Your task to perform on an android device: turn vacation reply on in the gmail app Image 0: 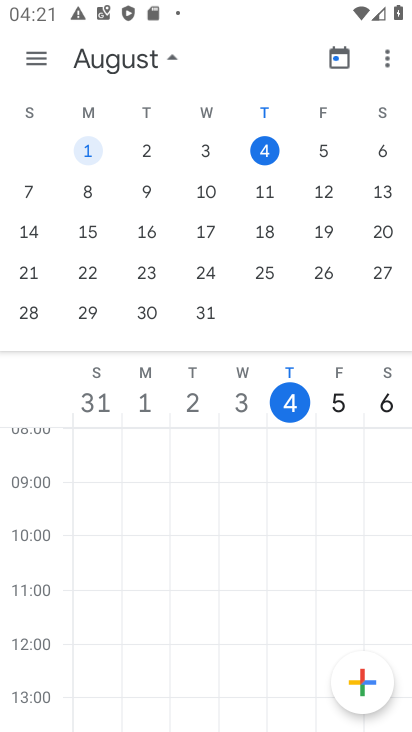
Step 0: press home button
Your task to perform on an android device: turn vacation reply on in the gmail app Image 1: 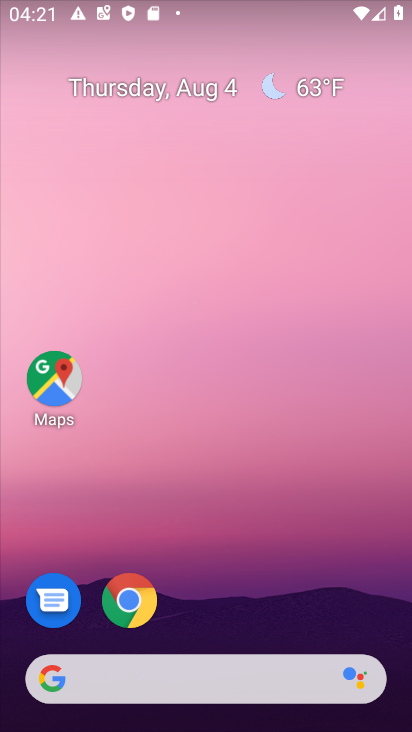
Step 1: drag from (270, 594) to (180, 51)
Your task to perform on an android device: turn vacation reply on in the gmail app Image 2: 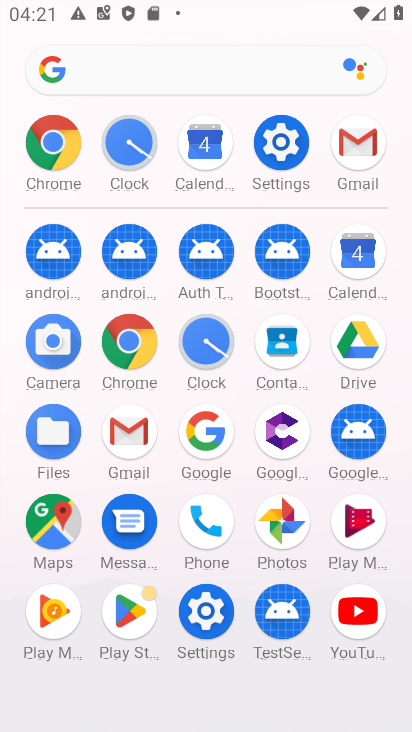
Step 2: click (123, 428)
Your task to perform on an android device: turn vacation reply on in the gmail app Image 3: 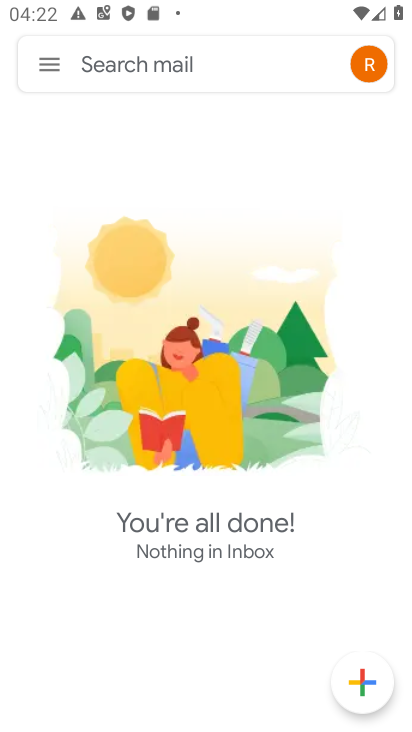
Step 3: click (59, 66)
Your task to perform on an android device: turn vacation reply on in the gmail app Image 4: 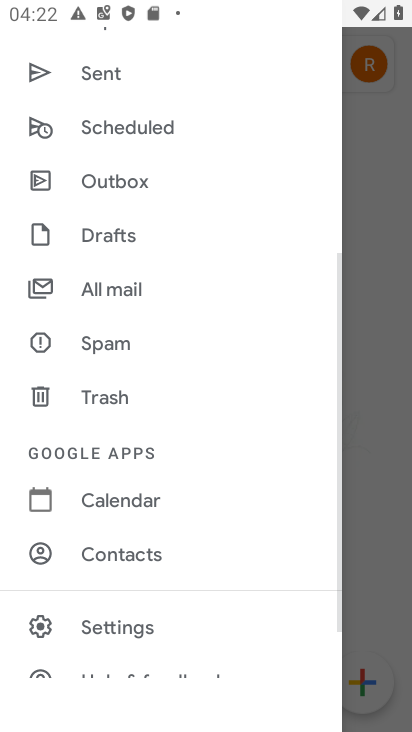
Step 4: drag from (126, 588) to (145, 228)
Your task to perform on an android device: turn vacation reply on in the gmail app Image 5: 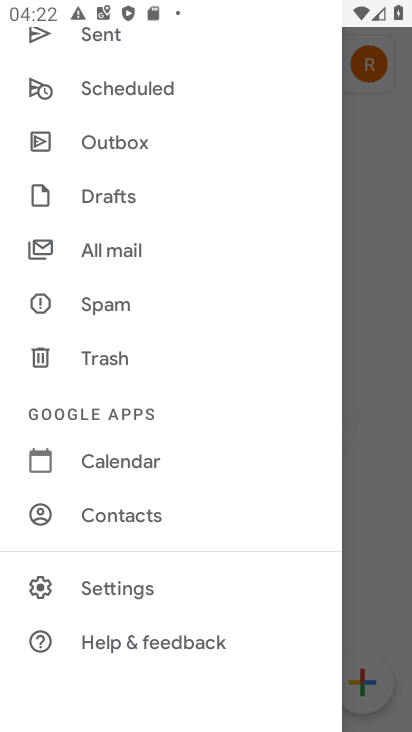
Step 5: click (118, 586)
Your task to perform on an android device: turn vacation reply on in the gmail app Image 6: 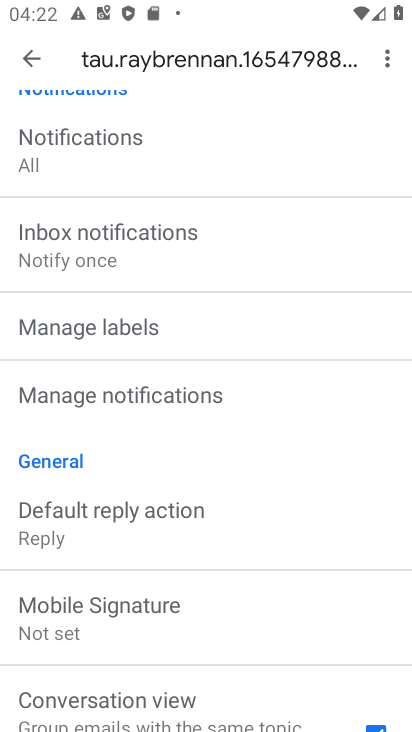
Step 6: drag from (240, 166) to (250, 559)
Your task to perform on an android device: turn vacation reply on in the gmail app Image 7: 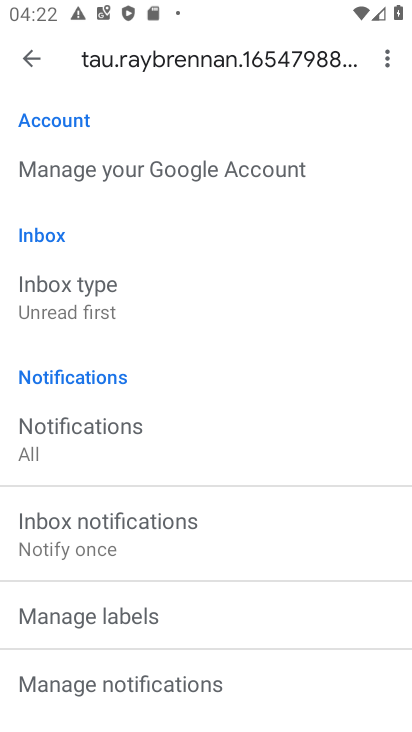
Step 7: drag from (311, 408) to (314, 342)
Your task to perform on an android device: turn vacation reply on in the gmail app Image 8: 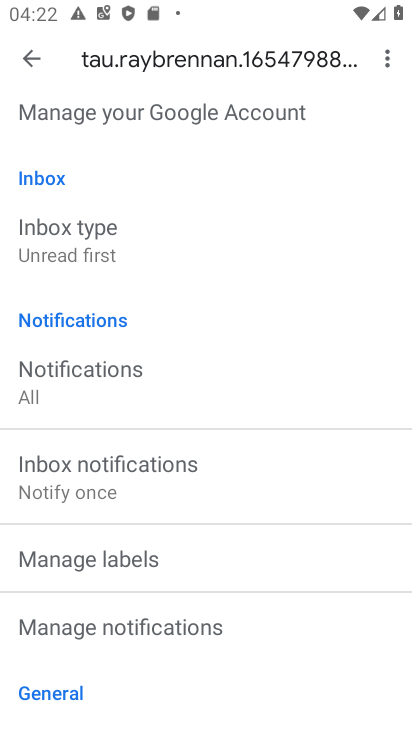
Step 8: drag from (213, 646) to (354, 227)
Your task to perform on an android device: turn vacation reply on in the gmail app Image 9: 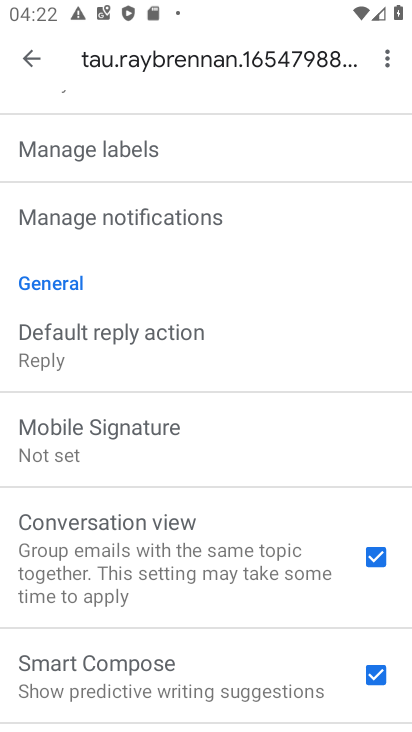
Step 9: drag from (157, 627) to (221, 266)
Your task to perform on an android device: turn vacation reply on in the gmail app Image 10: 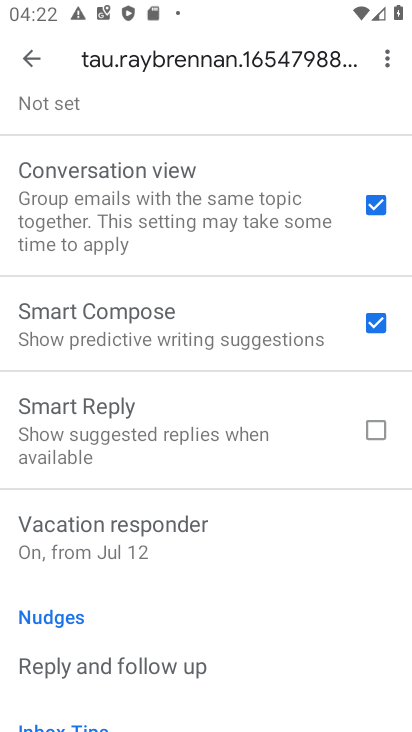
Step 10: click (157, 532)
Your task to perform on an android device: turn vacation reply on in the gmail app Image 11: 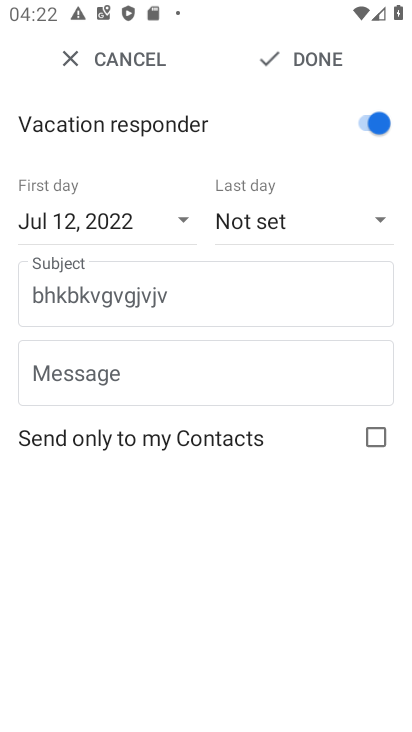
Step 11: task complete